Your task to perform on an android device: turn pop-ups off in chrome Image 0: 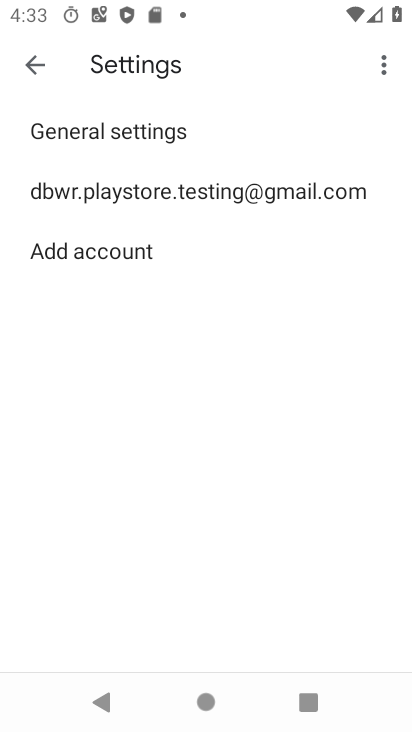
Step 0: press home button
Your task to perform on an android device: turn pop-ups off in chrome Image 1: 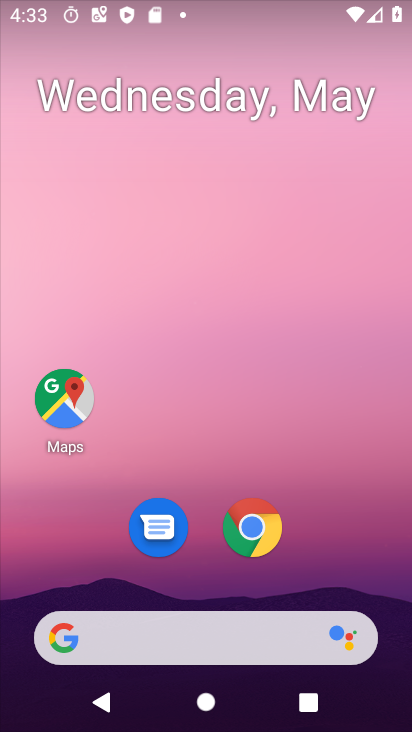
Step 1: click (246, 527)
Your task to perform on an android device: turn pop-ups off in chrome Image 2: 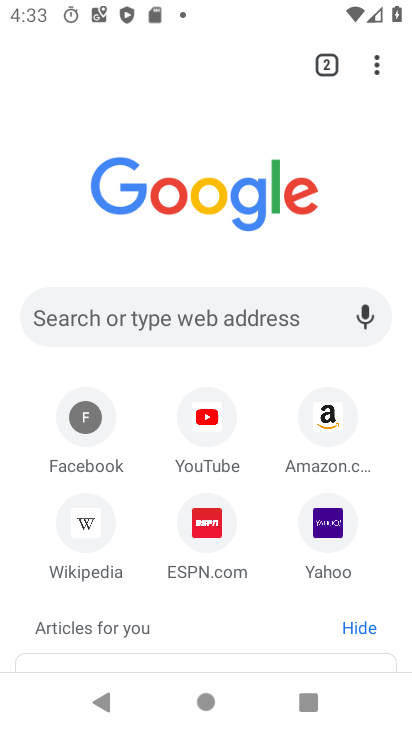
Step 2: drag from (372, 68) to (148, 540)
Your task to perform on an android device: turn pop-ups off in chrome Image 3: 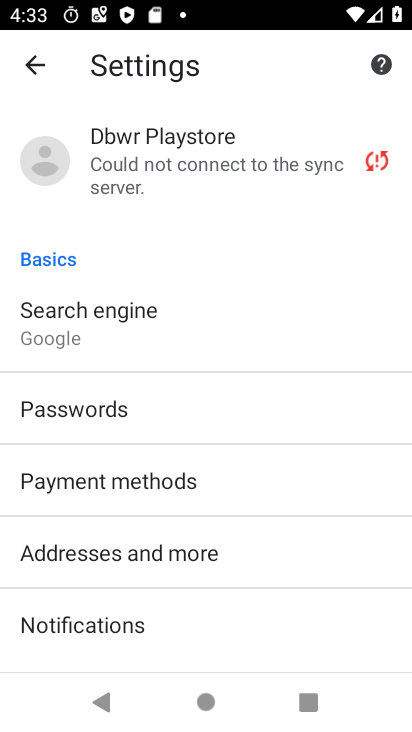
Step 3: drag from (159, 584) to (225, 257)
Your task to perform on an android device: turn pop-ups off in chrome Image 4: 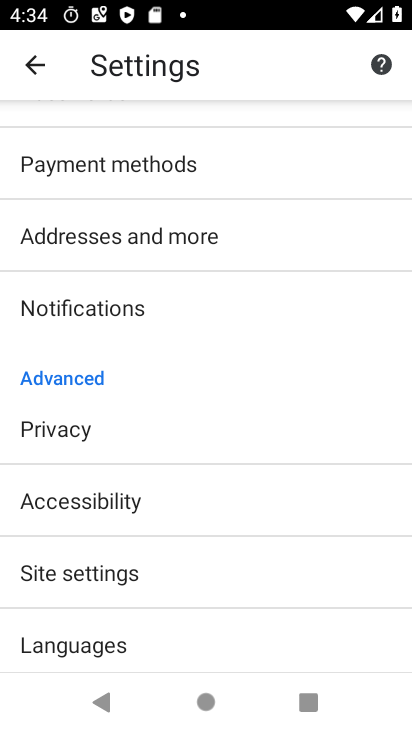
Step 4: click (107, 579)
Your task to perform on an android device: turn pop-ups off in chrome Image 5: 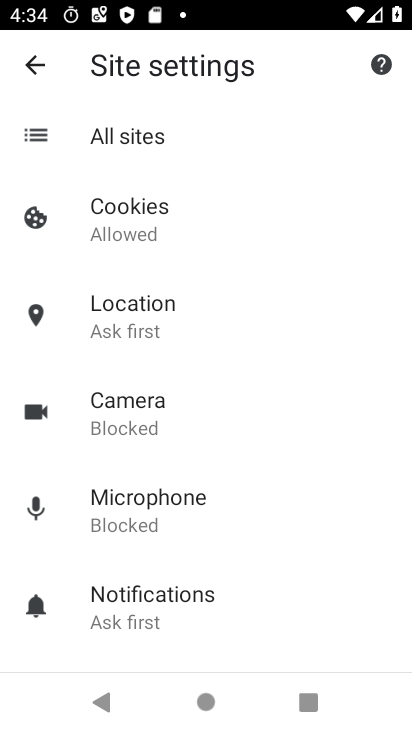
Step 5: drag from (284, 607) to (307, 23)
Your task to perform on an android device: turn pop-ups off in chrome Image 6: 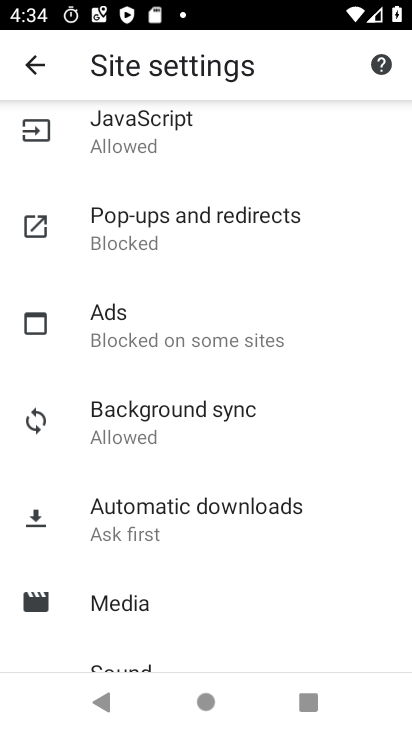
Step 6: click (226, 206)
Your task to perform on an android device: turn pop-ups off in chrome Image 7: 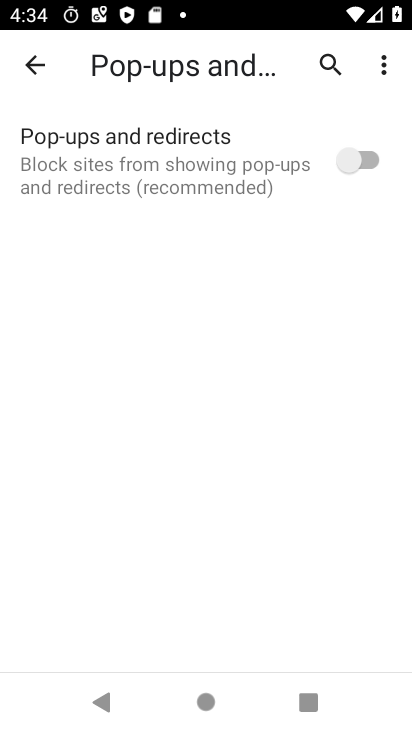
Step 7: task complete